Your task to perform on an android device: toggle improve location accuracy Image 0: 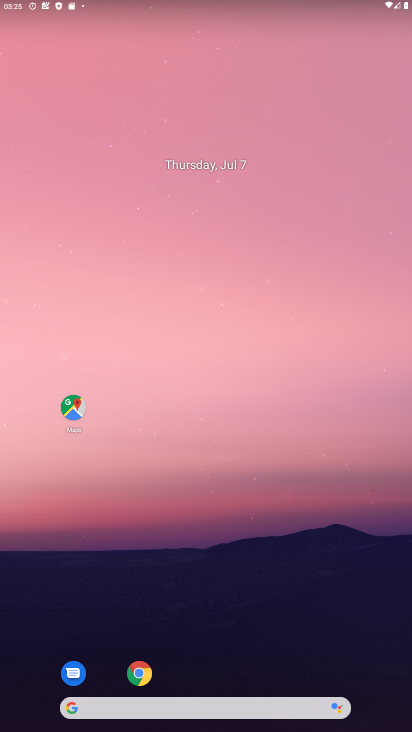
Step 0: drag from (215, 673) to (222, 292)
Your task to perform on an android device: toggle improve location accuracy Image 1: 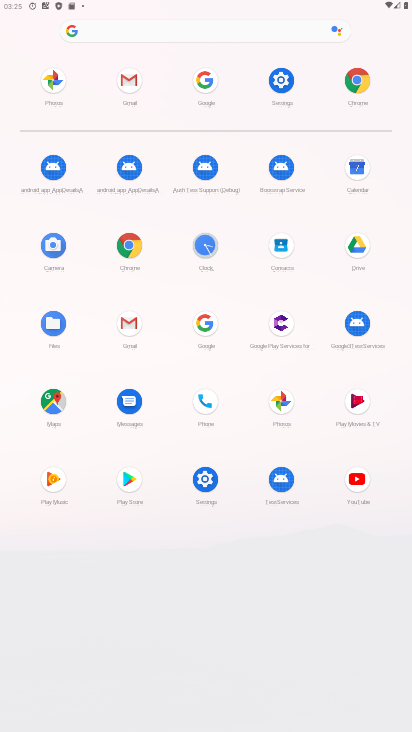
Step 1: click (282, 95)
Your task to perform on an android device: toggle improve location accuracy Image 2: 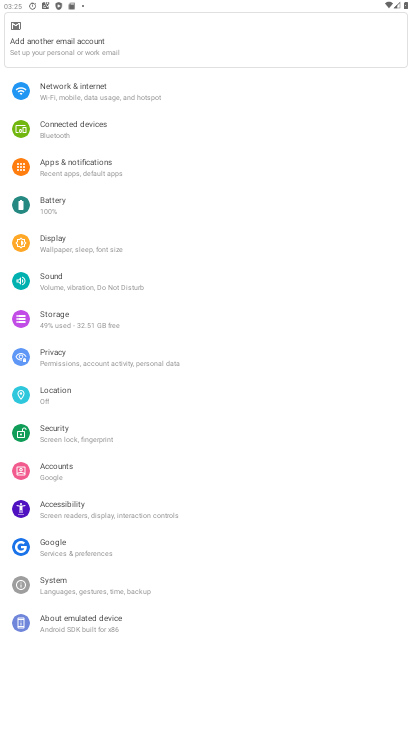
Step 2: click (85, 401)
Your task to perform on an android device: toggle improve location accuracy Image 3: 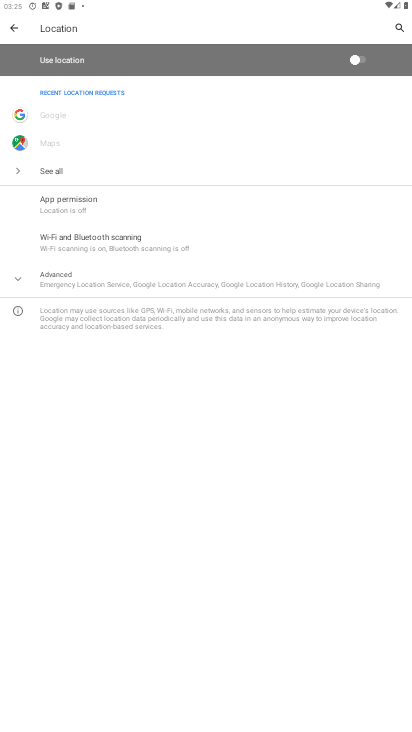
Step 3: click (111, 288)
Your task to perform on an android device: toggle improve location accuracy Image 4: 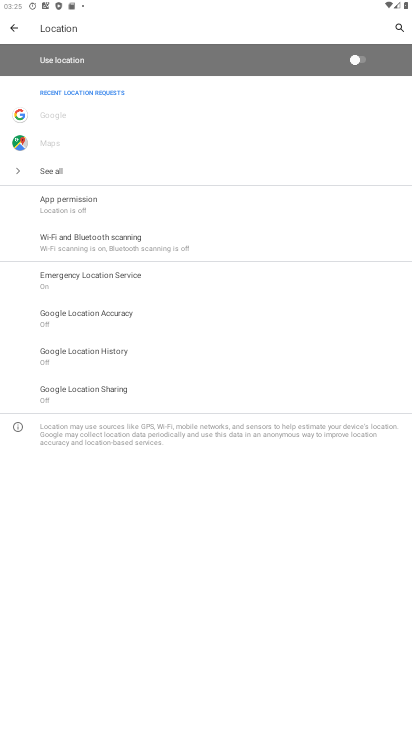
Step 4: click (134, 315)
Your task to perform on an android device: toggle improve location accuracy Image 5: 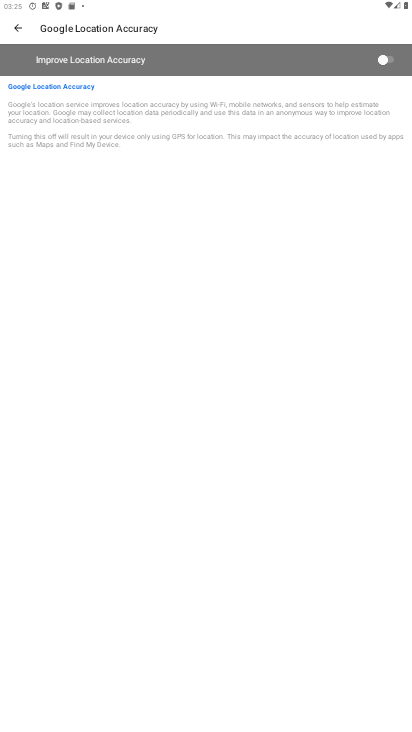
Step 5: click (384, 61)
Your task to perform on an android device: toggle improve location accuracy Image 6: 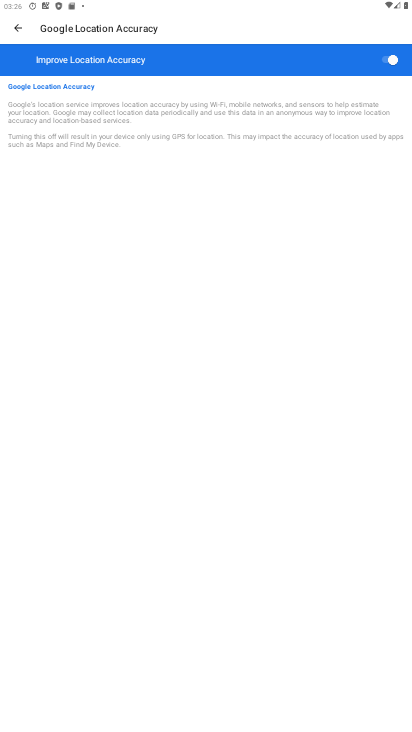
Step 6: task complete